Your task to perform on an android device: turn on airplane mode Image 0: 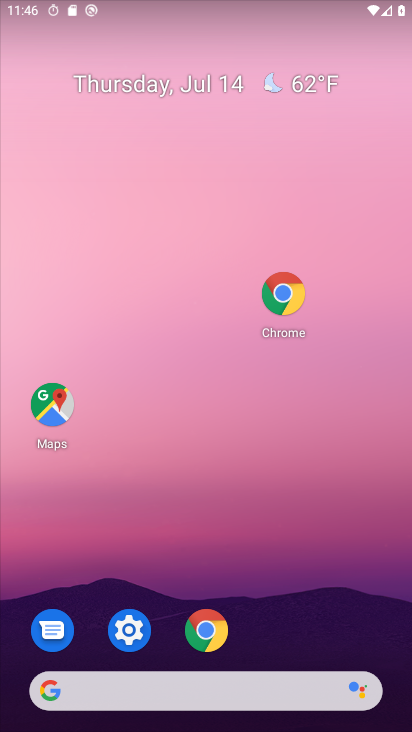
Step 0: drag from (302, 676) to (286, 131)
Your task to perform on an android device: turn on airplane mode Image 1: 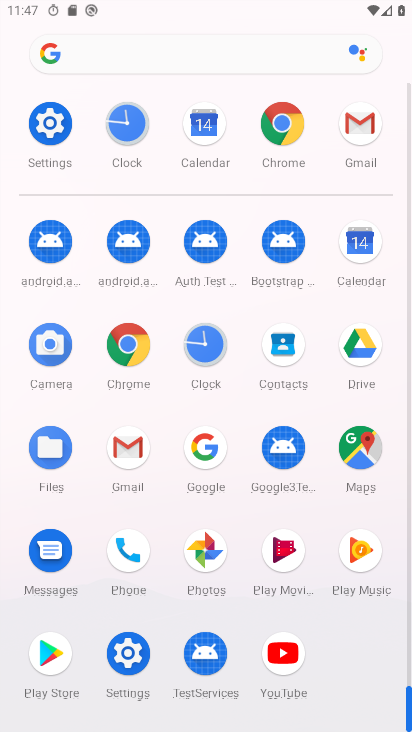
Step 1: click (44, 140)
Your task to perform on an android device: turn on airplane mode Image 2: 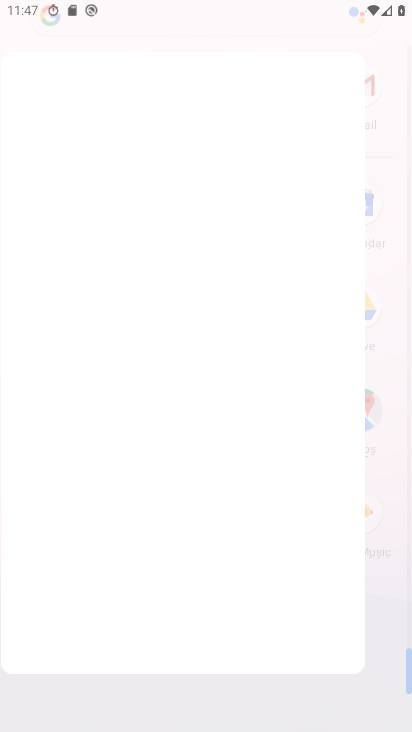
Step 2: click (33, 124)
Your task to perform on an android device: turn on airplane mode Image 3: 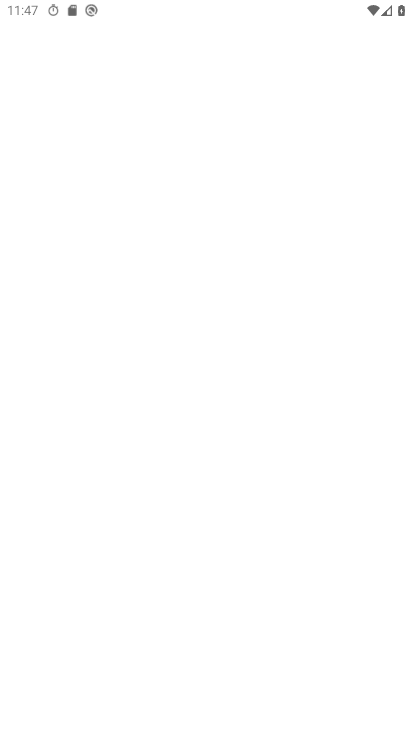
Step 3: click (30, 117)
Your task to perform on an android device: turn on airplane mode Image 4: 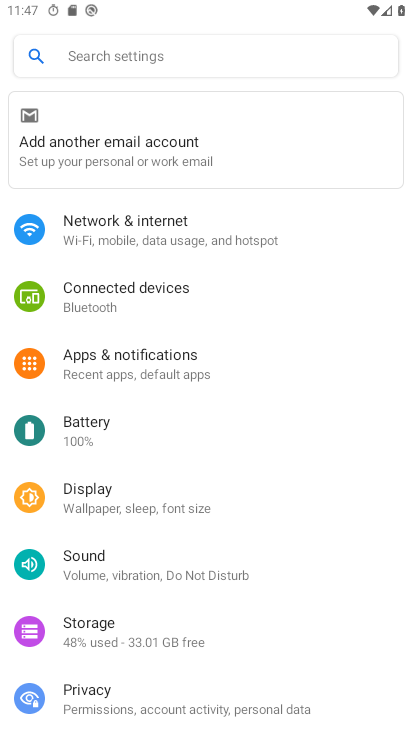
Step 4: click (106, 215)
Your task to perform on an android device: turn on airplane mode Image 5: 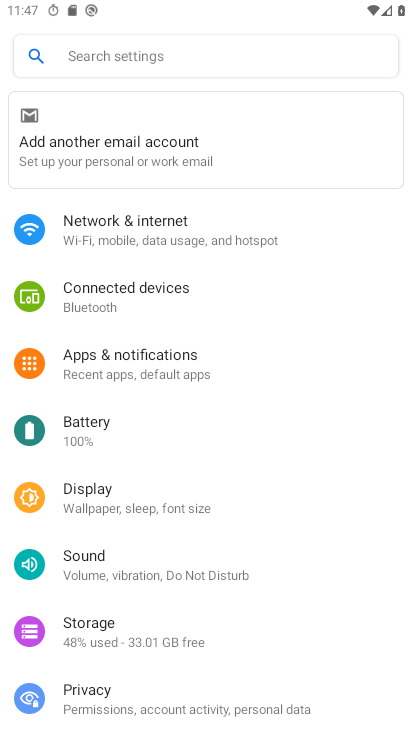
Step 5: click (124, 235)
Your task to perform on an android device: turn on airplane mode Image 6: 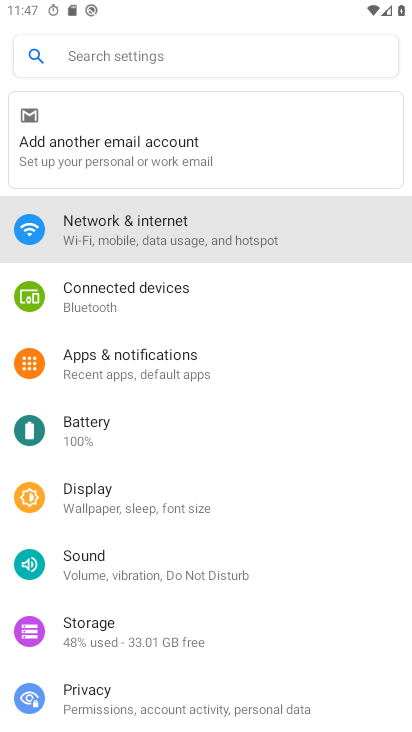
Step 6: click (169, 264)
Your task to perform on an android device: turn on airplane mode Image 7: 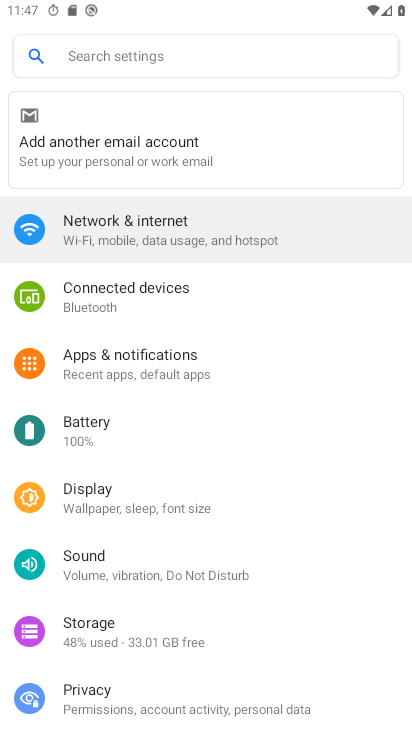
Step 7: click (184, 239)
Your task to perform on an android device: turn on airplane mode Image 8: 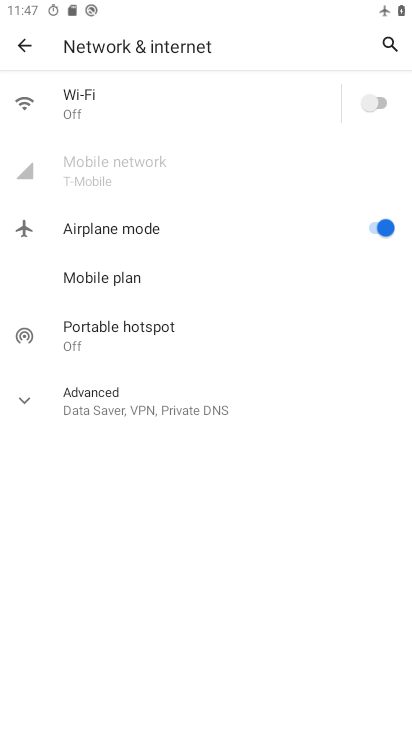
Step 8: click (385, 225)
Your task to perform on an android device: turn on airplane mode Image 9: 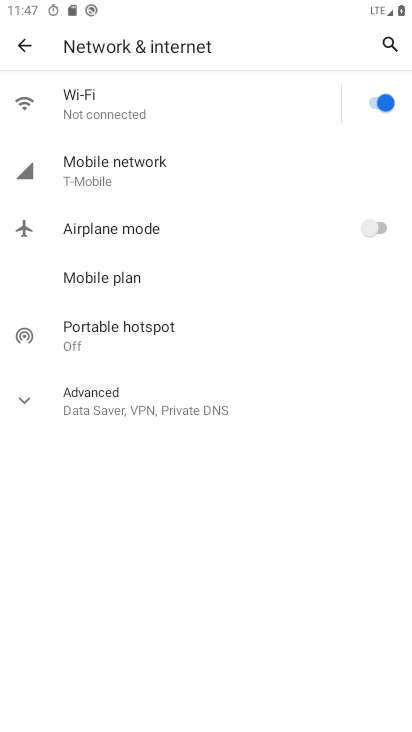
Step 9: click (373, 228)
Your task to perform on an android device: turn on airplane mode Image 10: 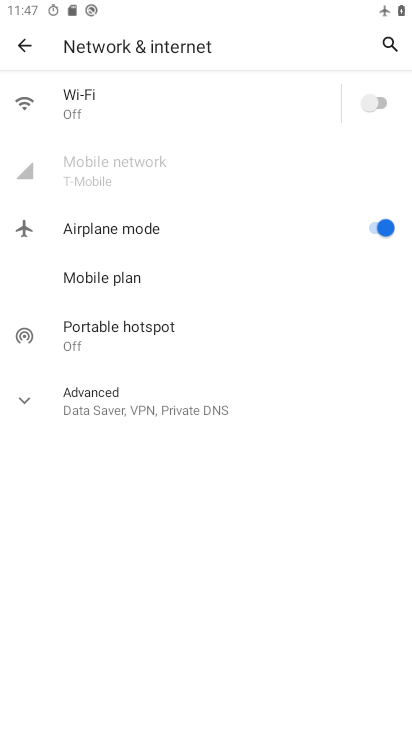
Step 10: task complete